Your task to perform on an android device: Check the weather Image 0: 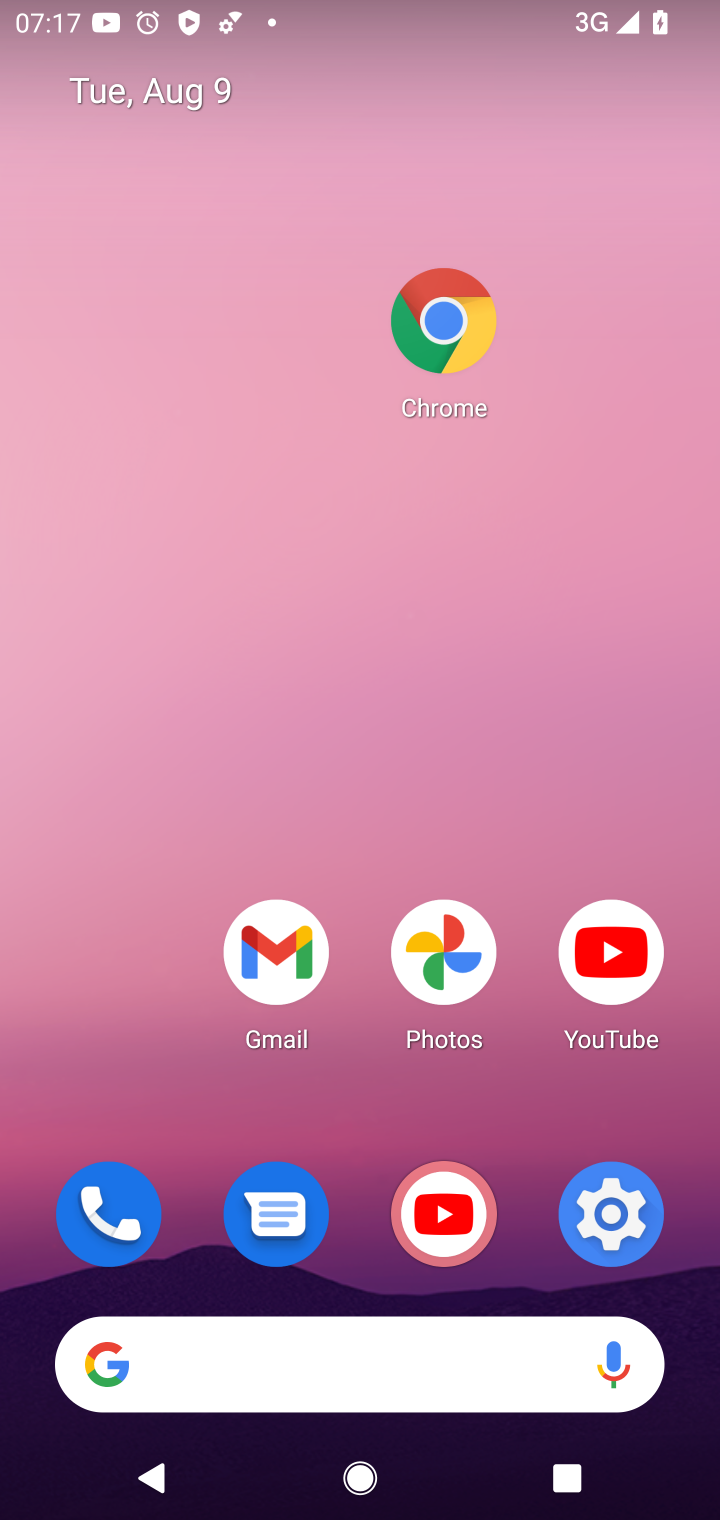
Step 0: press home button
Your task to perform on an android device: Check the weather Image 1: 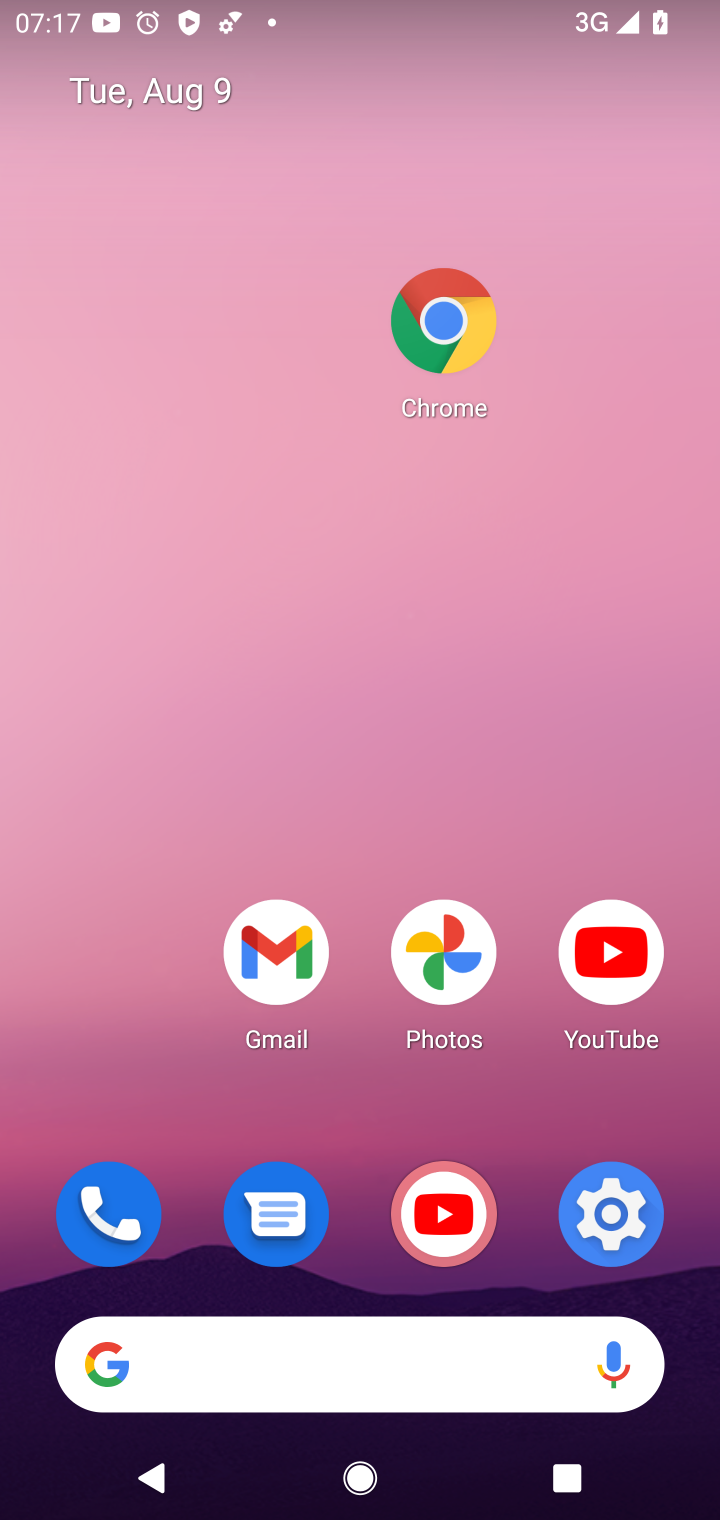
Step 1: click (303, 1350)
Your task to perform on an android device: Check the weather Image 2: 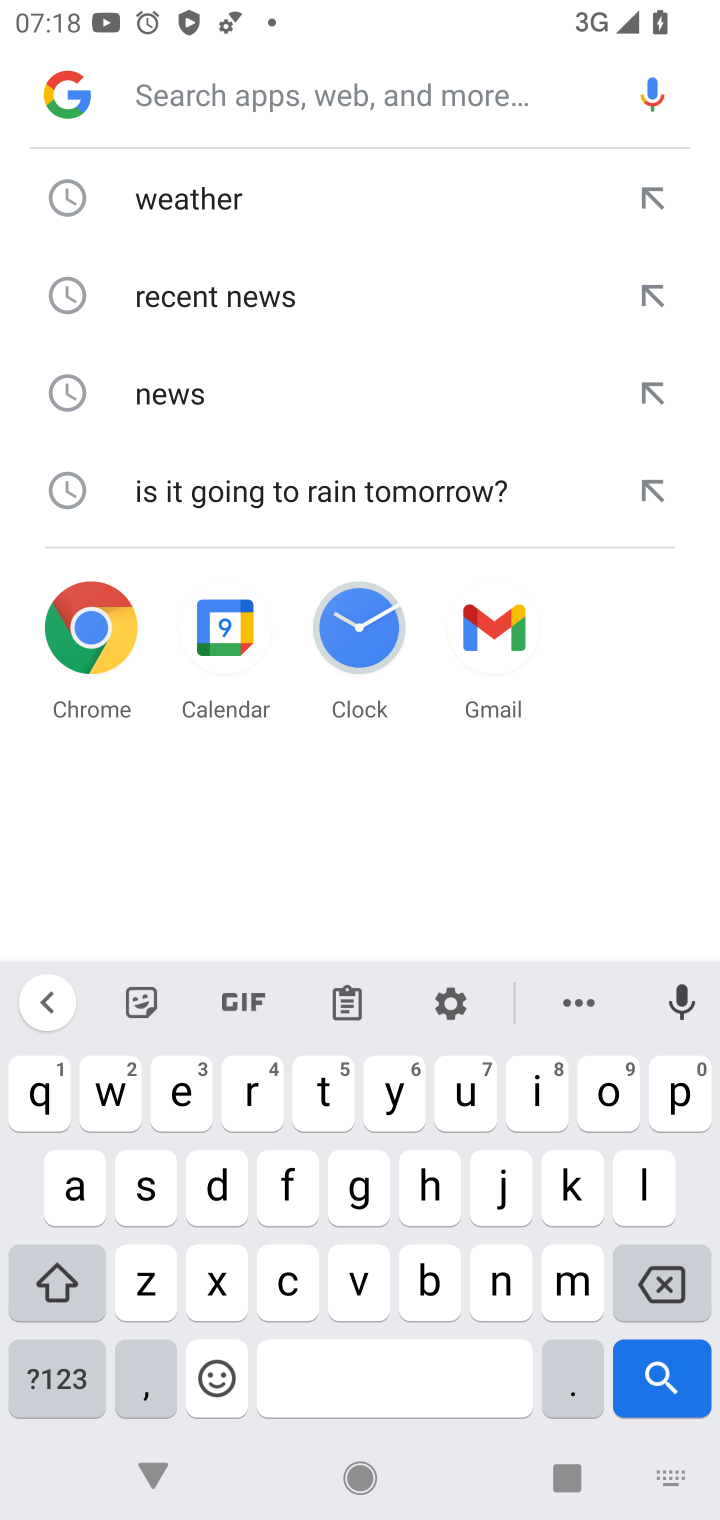
Step 2: click (296, 221)
Your task to perform on an android device: Check the weather Image 3: 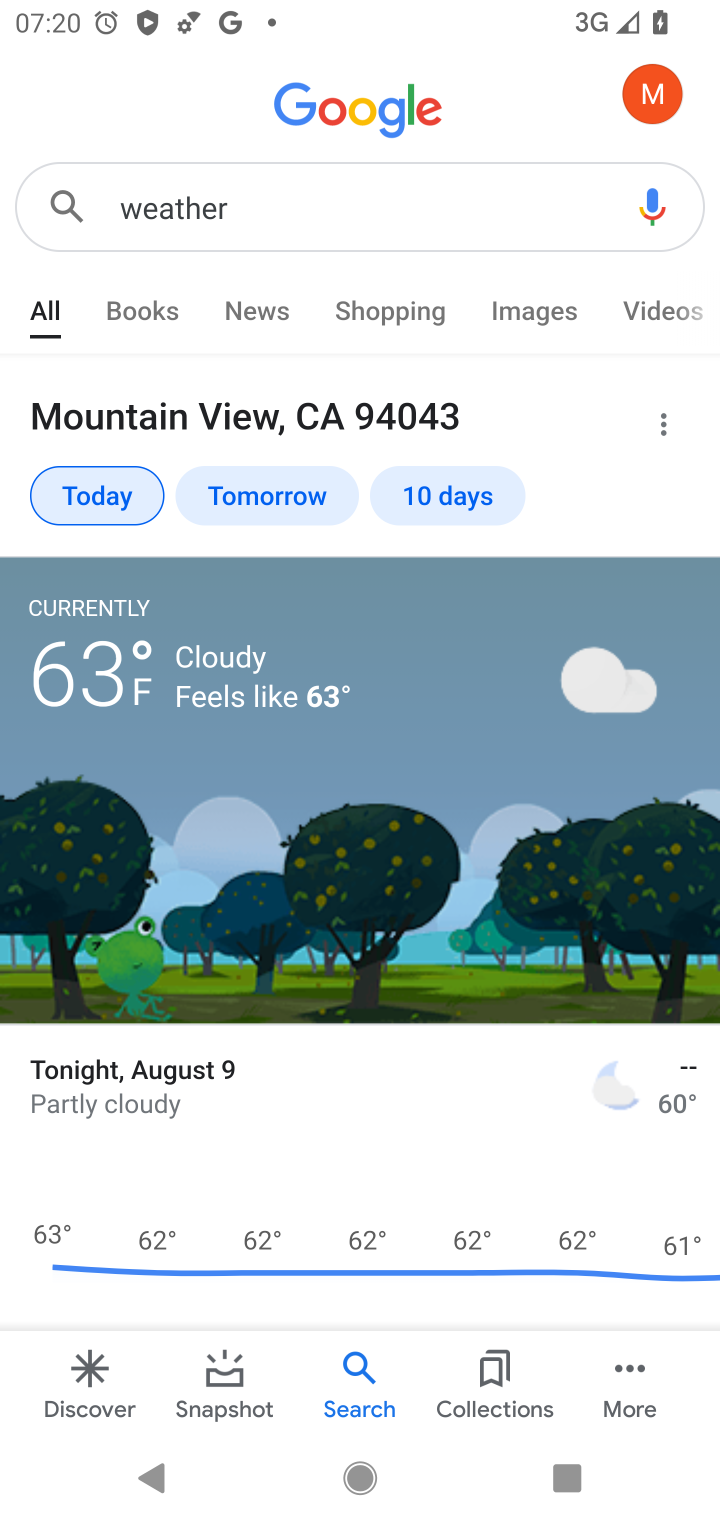
Step 3: task complete